Your task to perform on an android device: Open Google Maps Image 0: 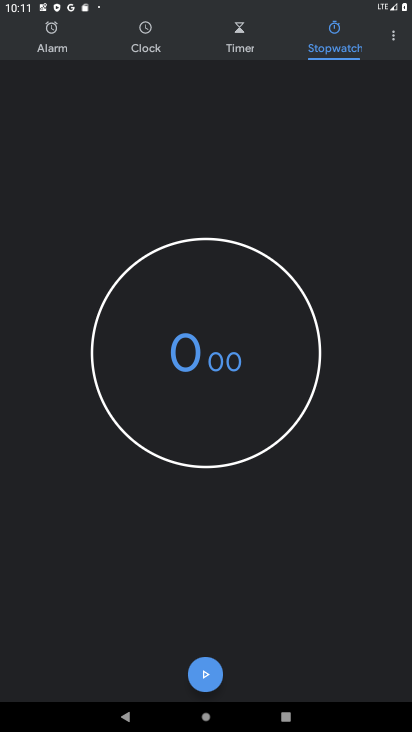
Step 0: press back button
Your task to perform on an android device: Open Google Maps Image 1: 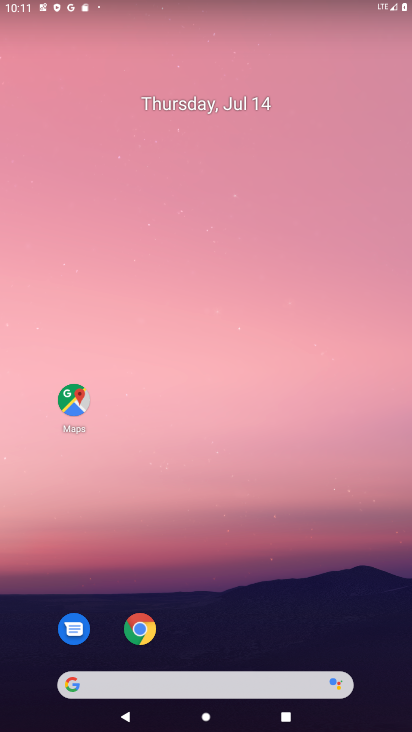
Step 1: click (61, 398)
Your task to perform on an android device: Open Google Maps Image 2: 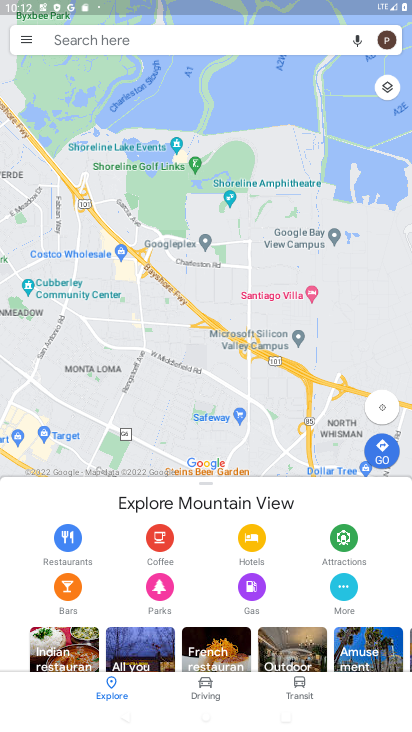
Step 2: task complete